Your task to perform on an android device: When is my next appointment? Image 0: 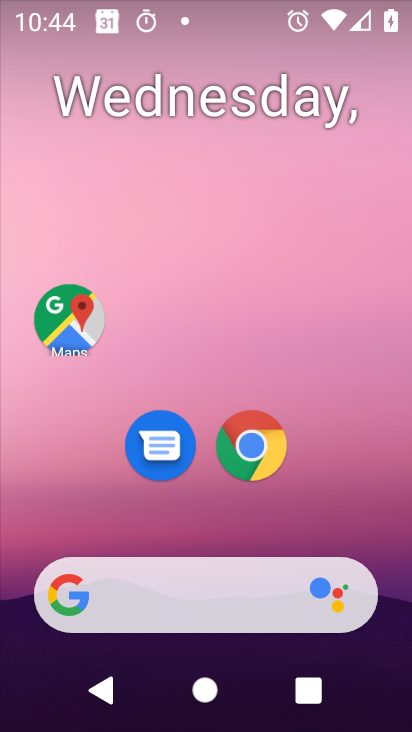
Step 0: drag from (321, 532) to (307, 84)
Your task to perform on an android device: When is my next appointment? Image 1: 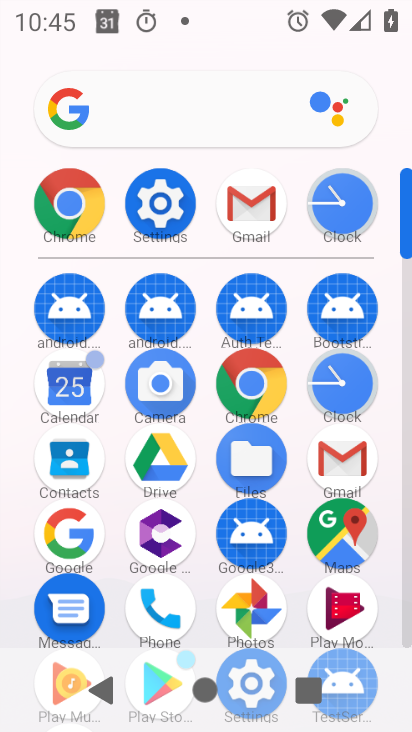
Step 1: click (69, 410)
Your task to perform on an android device: When is my next appointment? Image 2: 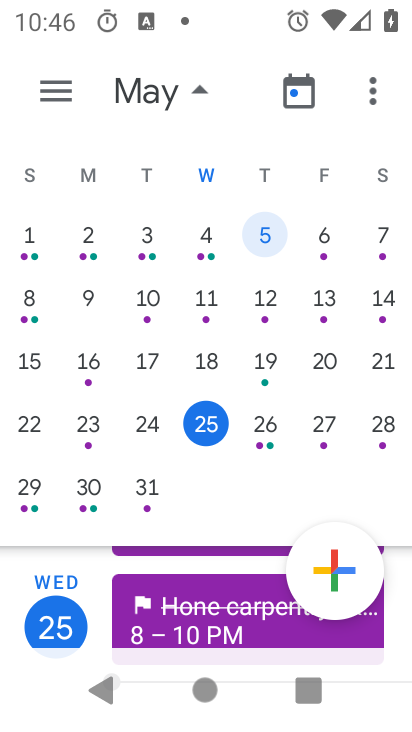
Step 2: click (268, 438)
Your task to perform on an android device: When is my next appointment? Image 3: 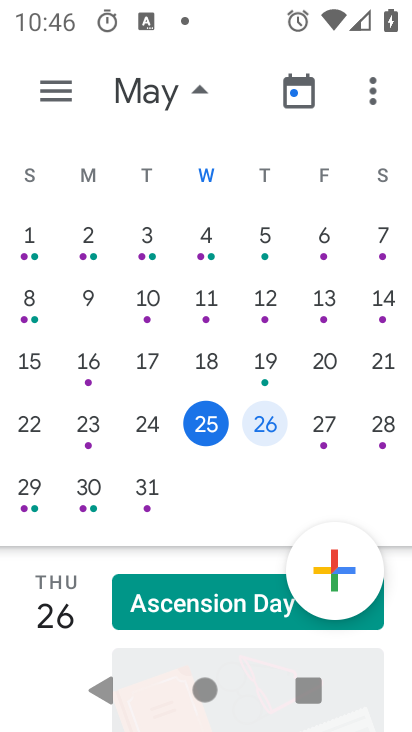
Step 3: task complete